Your task to perform on an android device: change the clock display to digital Image 0: 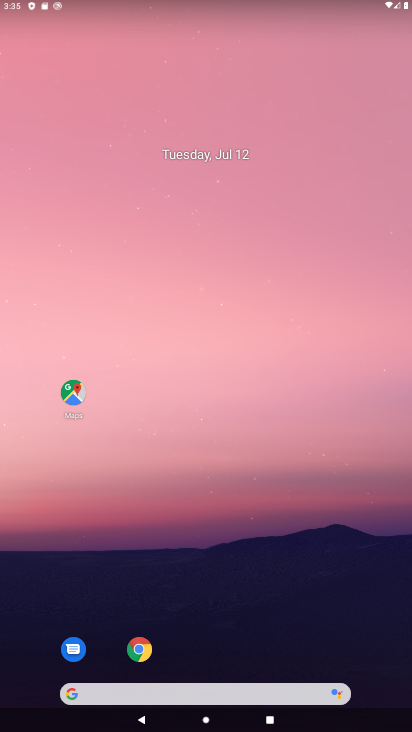
Step 0: drag from (212, 667) to (208, 28)
Your task to perform on an android device: change the clock display to digital Image 1: 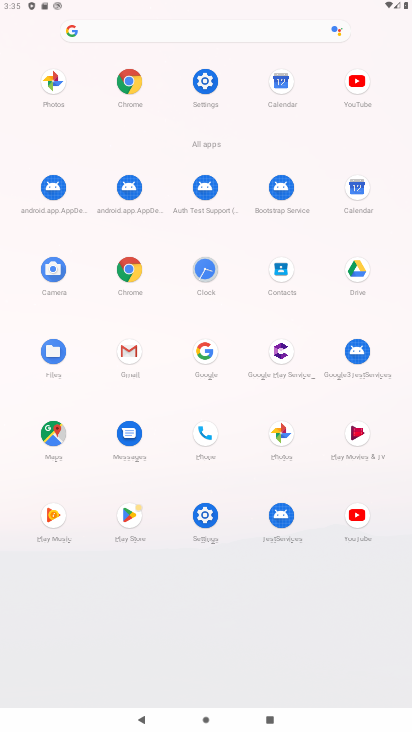
Step 1: click (211, 264)
Your task to perform on an android device: change the clock display to digital Image 2: 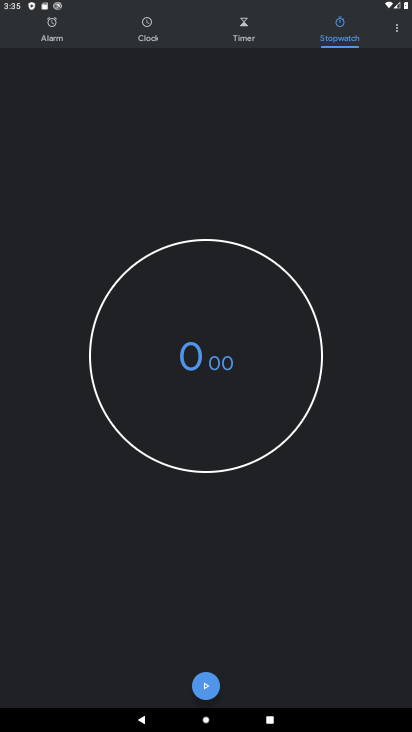
Step 2: click (395, 32)
Your task to perform on an android device: change the clock display to digital Image 3: 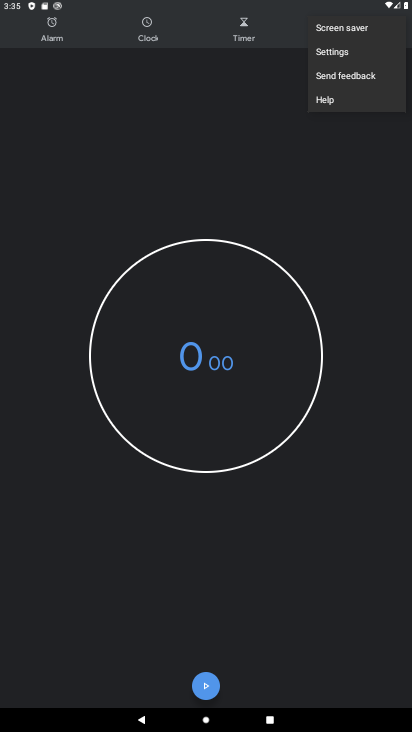
Step 3: click (350, 54)
Your task to perform on an android device: change the clock display to digital Image 4: 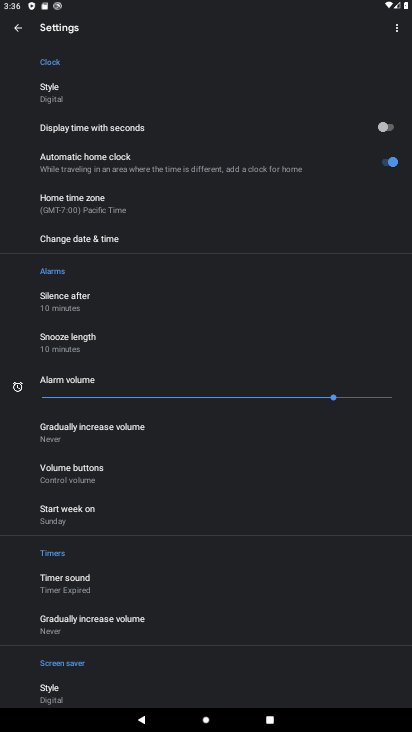
Step 4: click (85, 95)
Your task to perform on an android device: change the clock display to digital Image 5: 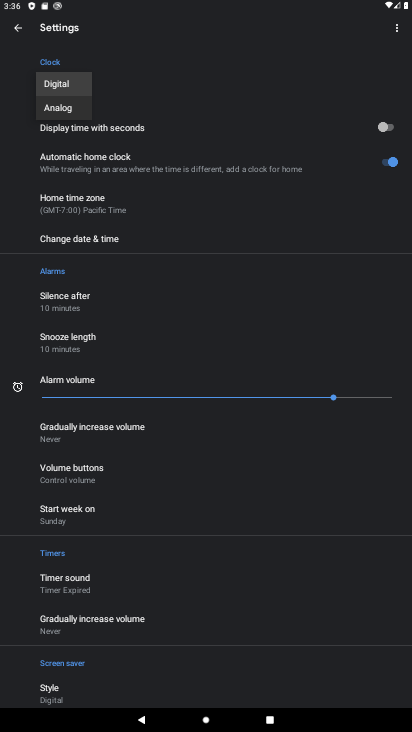
Step 5: click (72, 117)
Your task to perform on an android device: change the clock display to digital Image 6: 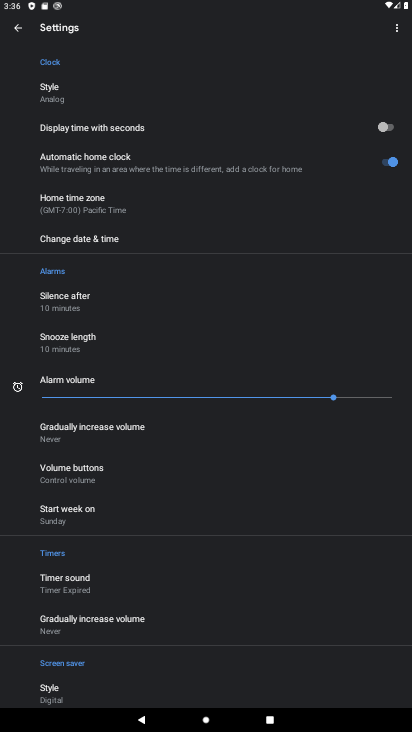
Step 6: click (76, 91)
Your task to perform on an android device: change the clock display to digital Image 7: 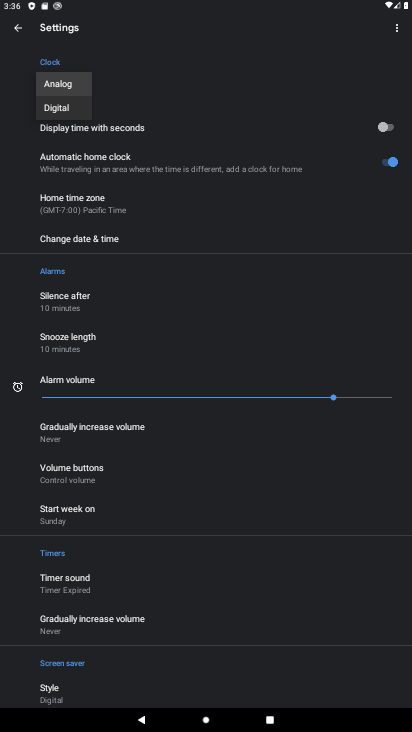
Step 7: click (69, 112)
Your task to perform on an android device: change the clock display to digital Image 8: 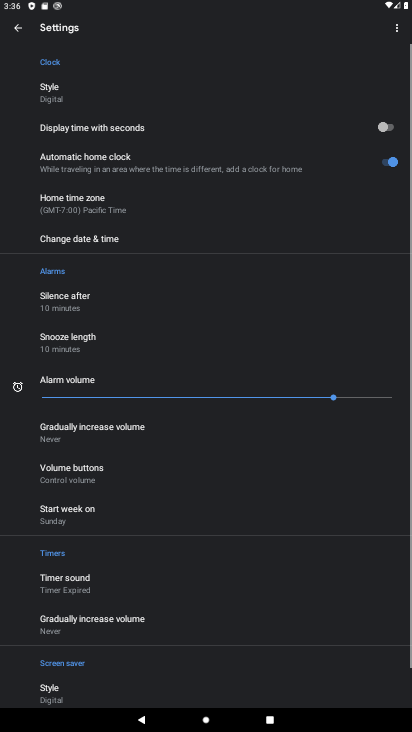
Step 8: task complete